Your task to perform on an android device: change the clock style Image 0: 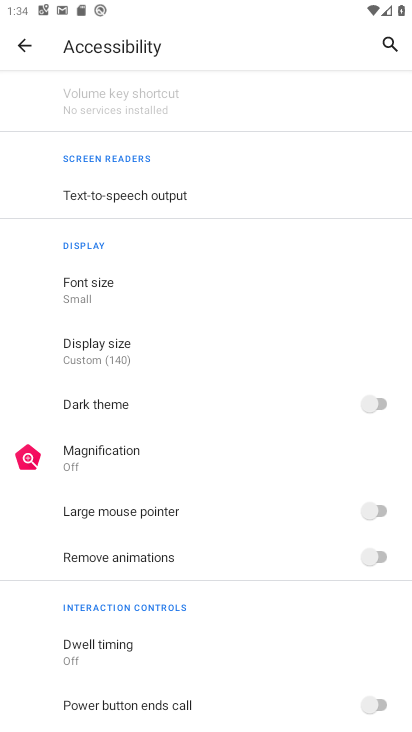
Step 0: press home button
Your task to perform on an android device: change the clock style Image 1: 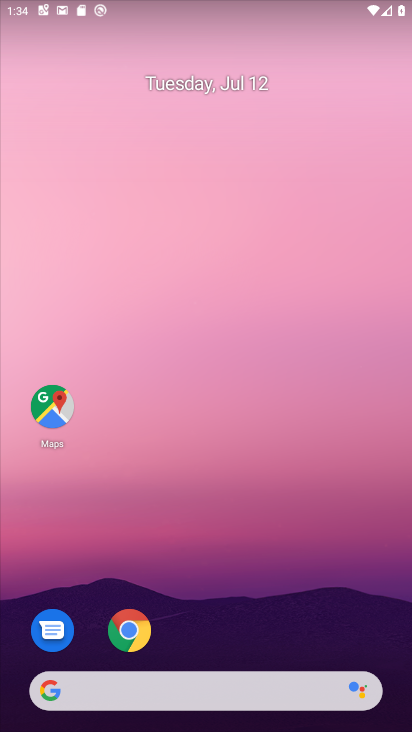
Step 1: drag from (229, 520) to (246, 109)
Your task to perform on an android device: change the clock style Image 2: 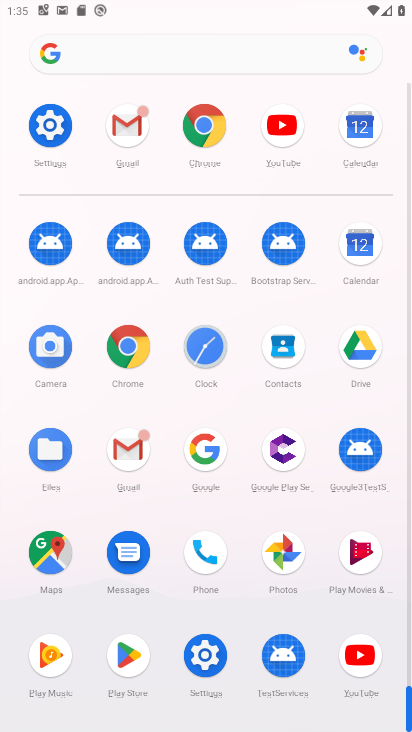
Step 2: click (216, 326)
Your task to perform on an android device: change the clock style Image 3: 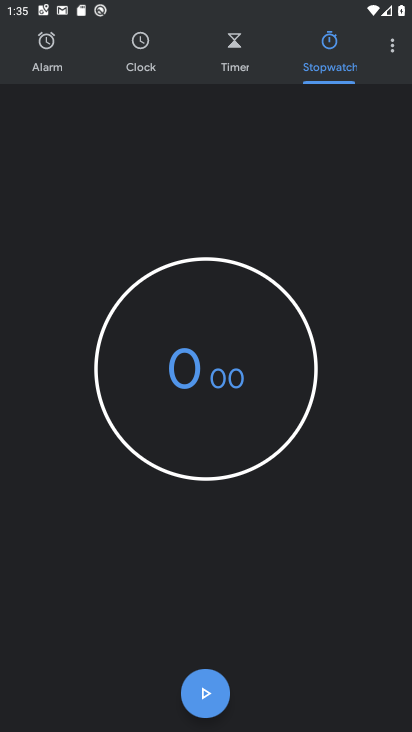
Step 3: click (387, 49)
Your task to perform on an android device: change the clock style Image 4: 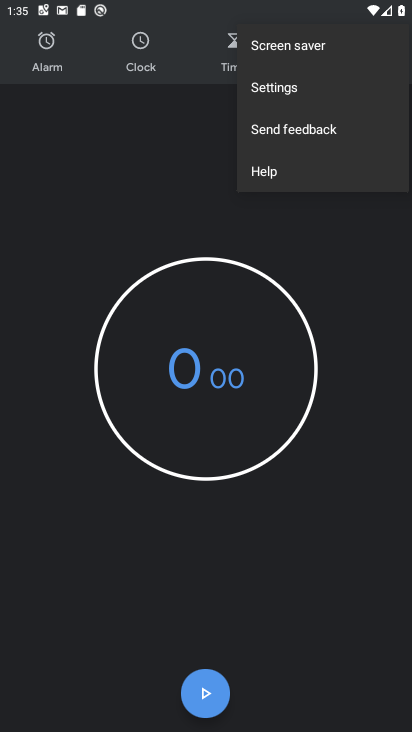
Step 4: click (259, 86)
Your task to perform on an android device: change the clock style Image 5: 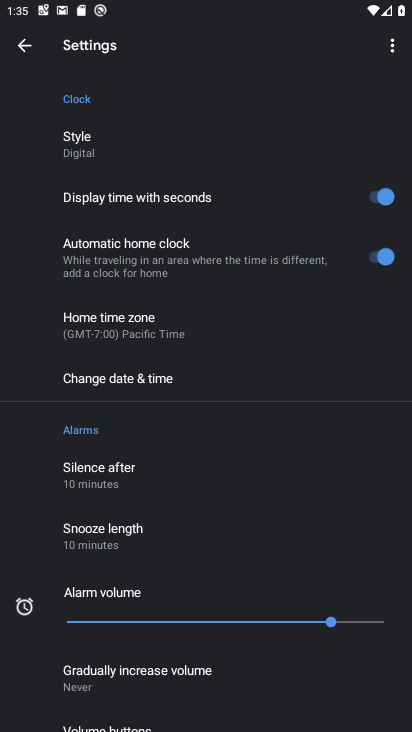
Step 5: click (115, 131)
Your task to perform on an android device: change the clock style Image 6: 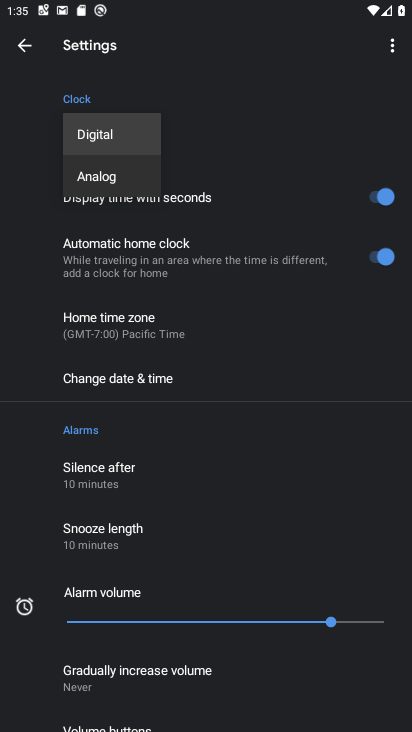
Step 6: click (134, 175)
Your task to perform on an android device: change the clock style Image 7: 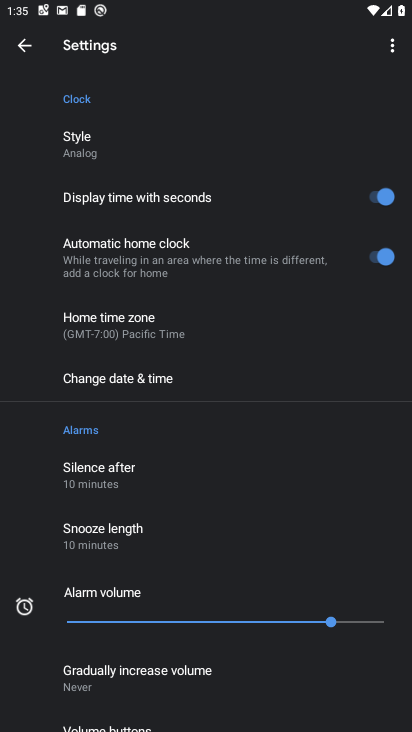
Step 7: task complete